Your task to perform on an android device: turn on notifications settings in the gmail app Image 0: 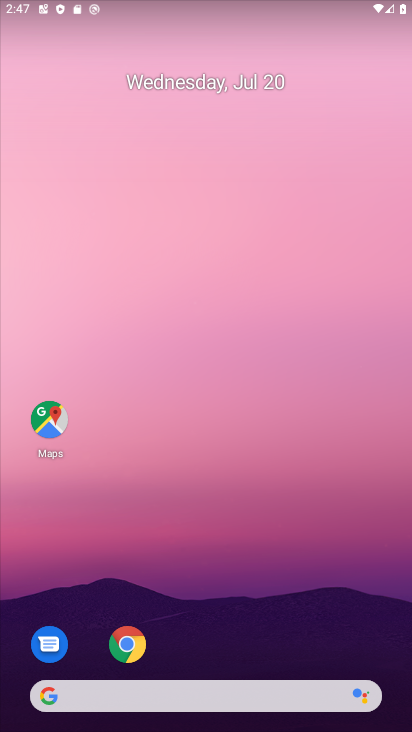
Step 0: drag from (231, 661) to (162, 12)
Your task to perform on an android device: turn on notifications settings in the gmail app Image 1: 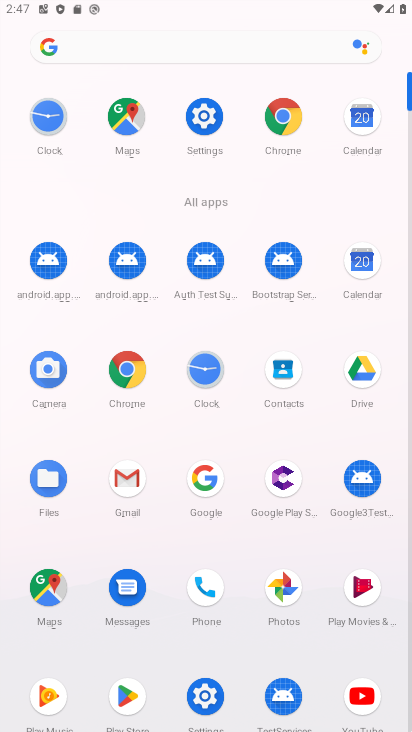
Step 1: click (120, 487)
Your task to perform on an android device: turn on notifications settings in the gmail app Image 2: 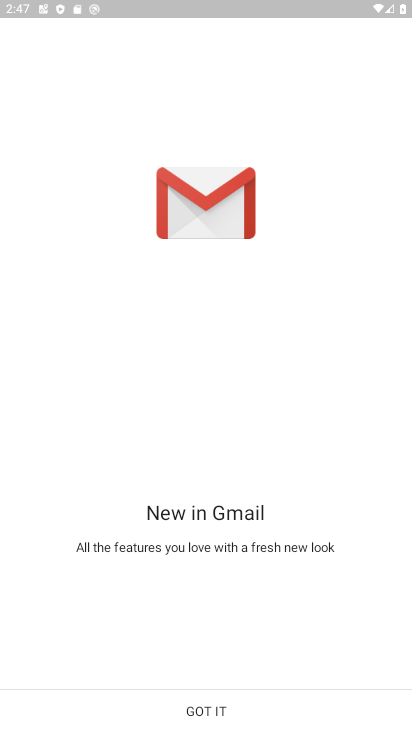
Step 2: click (242, 706)
Your task to perform on an android device: turn on notifications settings in the gmail app Image 3: 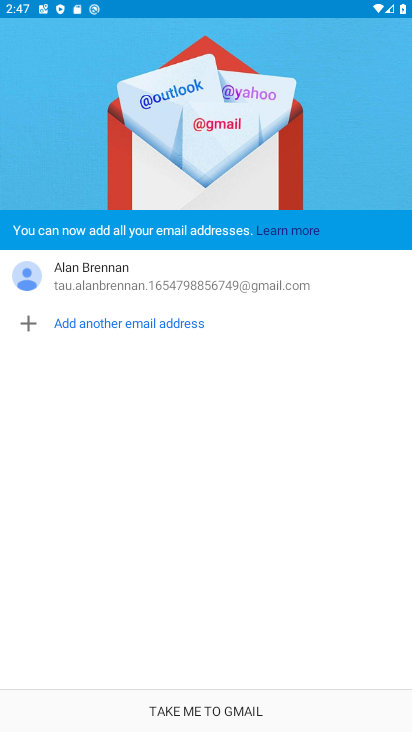
Step 3: click (242, 706)
Your task to perform on an android device: turn on notifications settings in the gmail app Image 4: 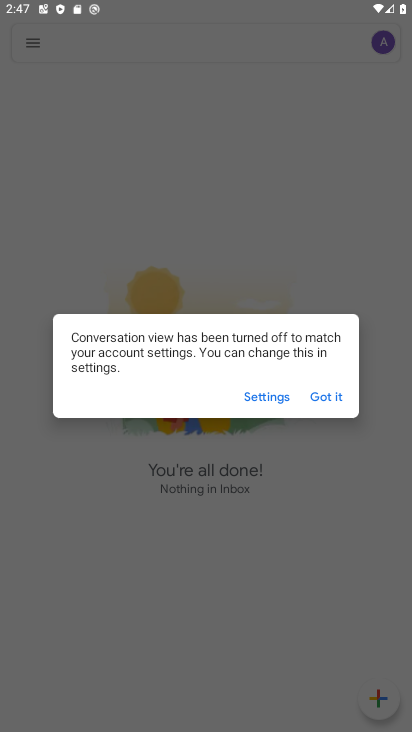
Step 4: click (327, 388)
Your task to perform on an android device: turn on notifications settings in the gmail app Image 5: 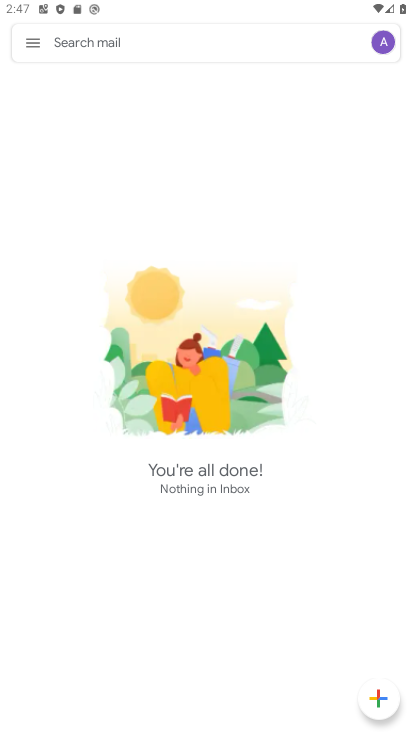
Step 5: click (24, 25)
Your task to perform on an android device: turn on notifications settings in the gmail app Image 6: 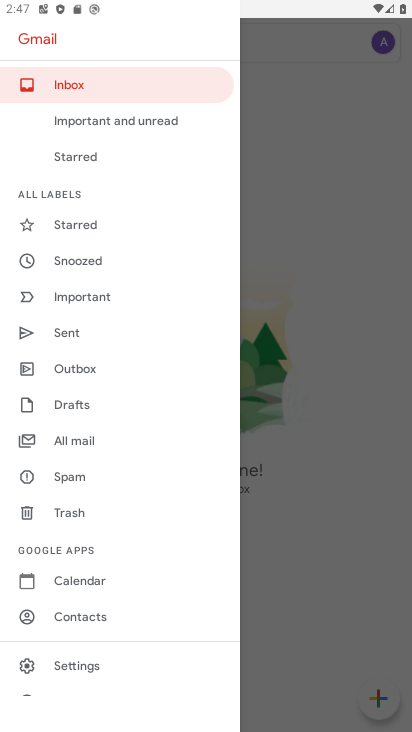
Step 6: click (64, 678)
Your task to perform on an android device: turn on notifications settings in the gmail app Image 7: 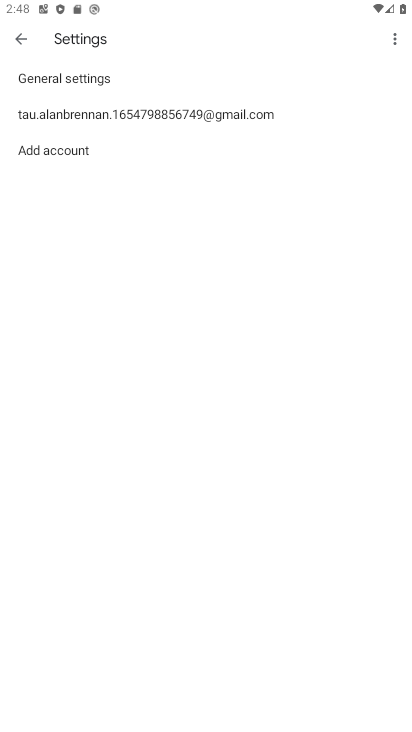
Step 7: task complete